Your task to perform on an android device: Open eBay Image 0: 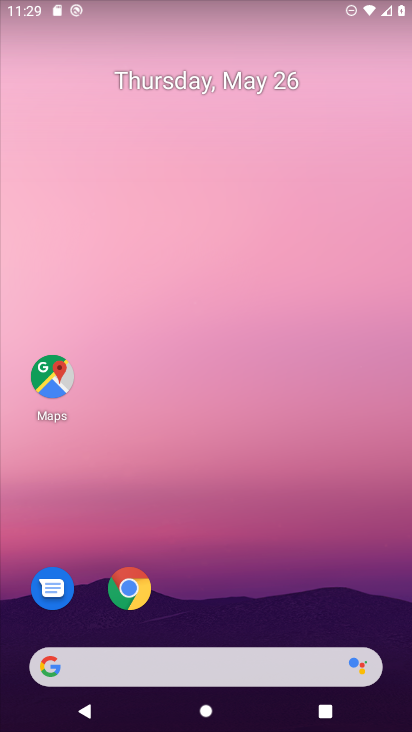
Step 0: click (127, 591)
Your task to perform on an android device: Open eBay Image 1: 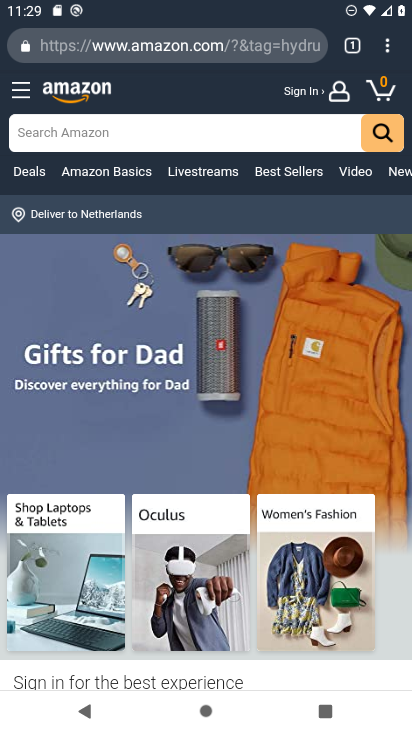
Step 1: click (266, 52)
Your task to perform on an android device: Open eBay Image 2: 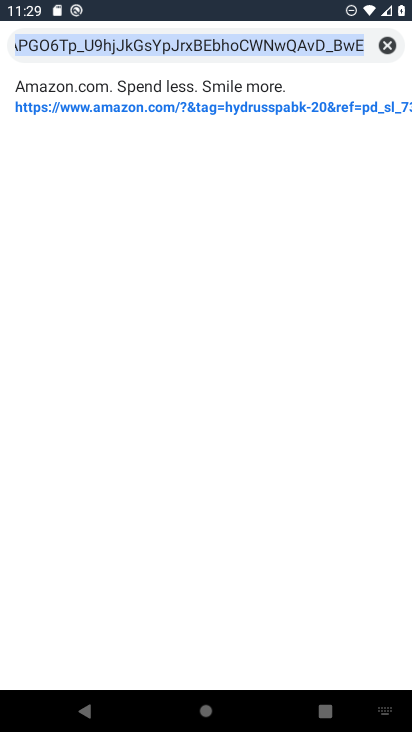
Step 2: click (390, 44)
Your task to perform on an android device: Open eBay Image 3: 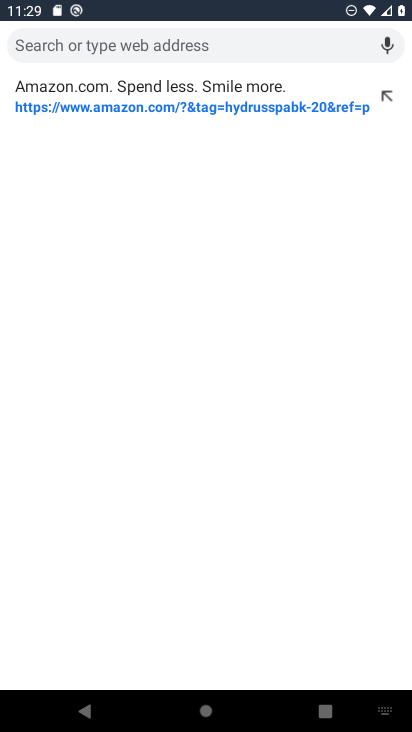
Step 3: type "ebay"
Your task to perform on an android device: Open eBay Image 4: 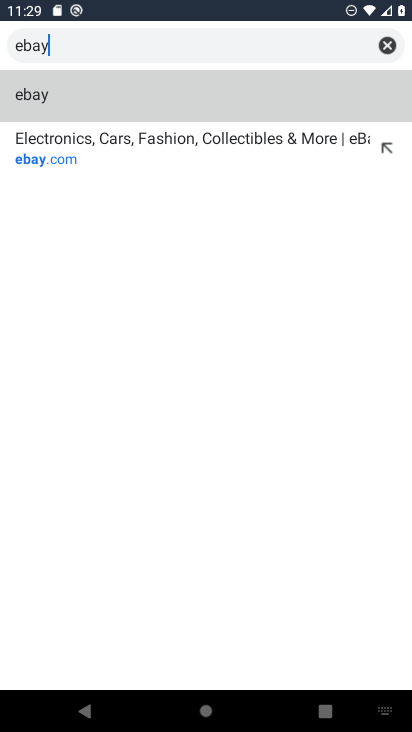
Step 4: click (41, 86)
Your task to perform on an android device: Open eBay Image 5: 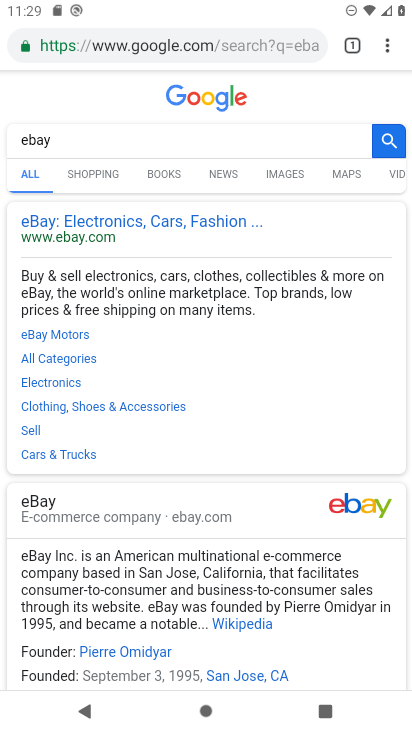
Step 5: click (77, 228)
Your task to perform on an android device: Open eBay Image 6: 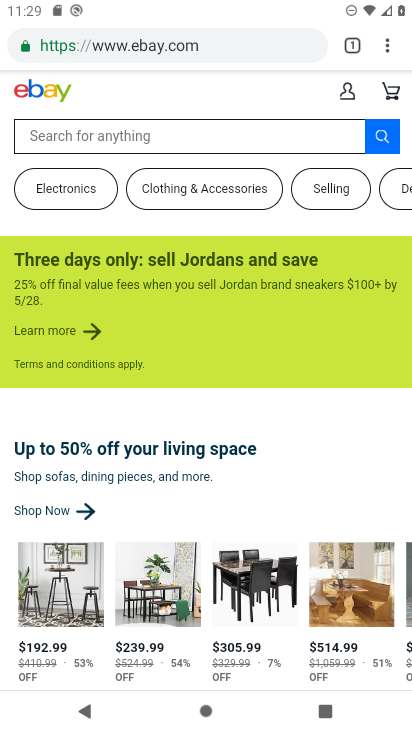
Step 6: task complete